Your task to perform on an android device: Open the calendar app, open the side menu, and click the "Day" option Image 0: 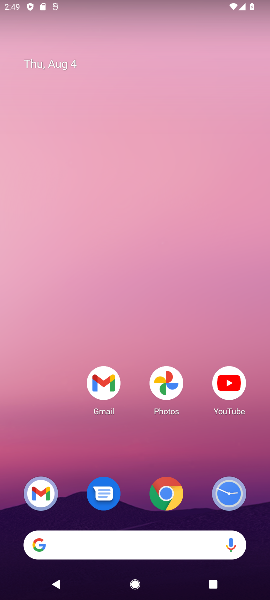
Step 0: drag from (150, 519) to (150, 247)
Your task to perform on an android device: Open the calendar app, open the side menu, and click the "Day" option Image 1: 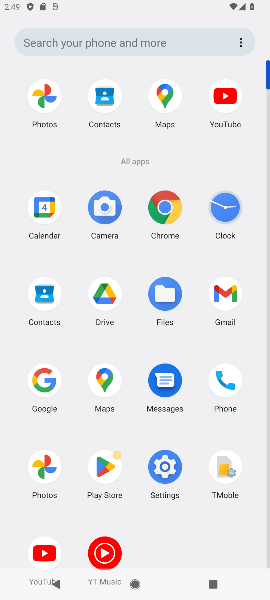
Step 1: click (40, 200)
Your task to perform on an android device: Open the calendar app, open the side menu, and click the "Day" option Image 2: 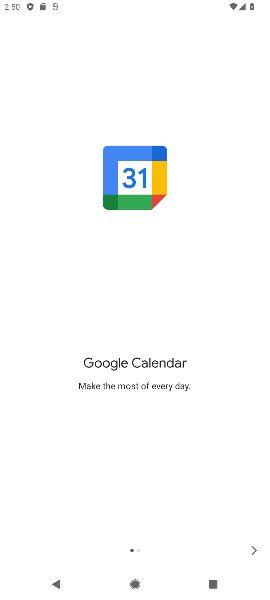
Step 2: click (250, 551)
Your task to perform on an android device: Open the calendar app, open the side menu, and click the "Day" option Image 3: 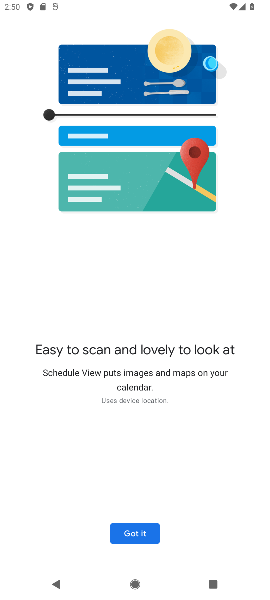
Step 3: click (250, 552)
Your task to perform on an android device: Open the calendar app, open the side menu, and click the "Day" option Image 4: 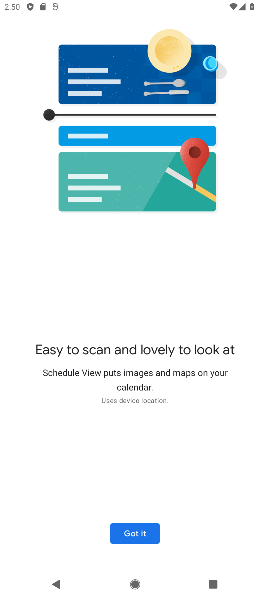
Step 4: click (126, 526)
Your task to perform on an android device: Open the calendar app, open the side menu, and click the "Day" option Image 5: 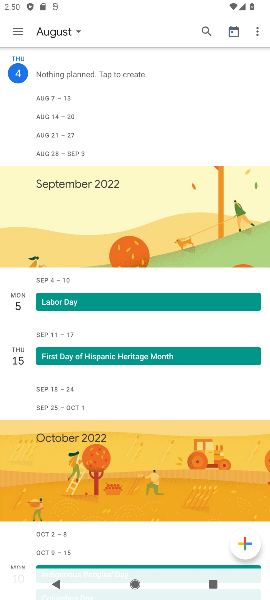
Step 5: click (14, 31)
Your task to perform on an android device: Open the calendar app, open the side menu, and click the "Day" option Image 6: 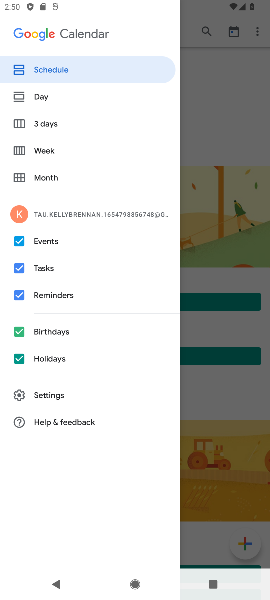
Step 6: click (43, 101)
Your task to perform on an android device: Open the calendar app, open the side menu, and click the "Day" option Image 7: 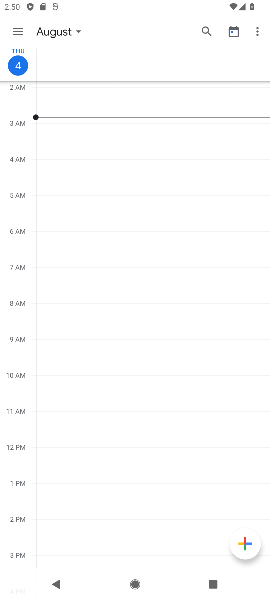
Step 7: task complete